Your task to perform on an android device: What is the recent news? Image 0: 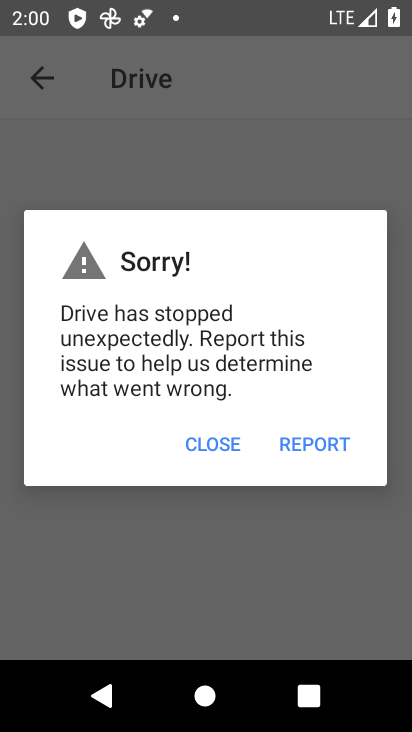
Step 0: press home button
Your task to perform on an android device: What is the recent news? Image 1: 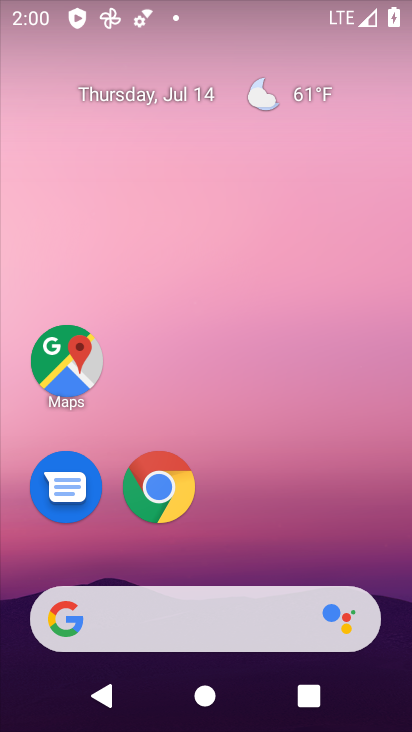
Step 1: task complete